Your task to perform on an android device: turn on translation in the chrome app Image 0: 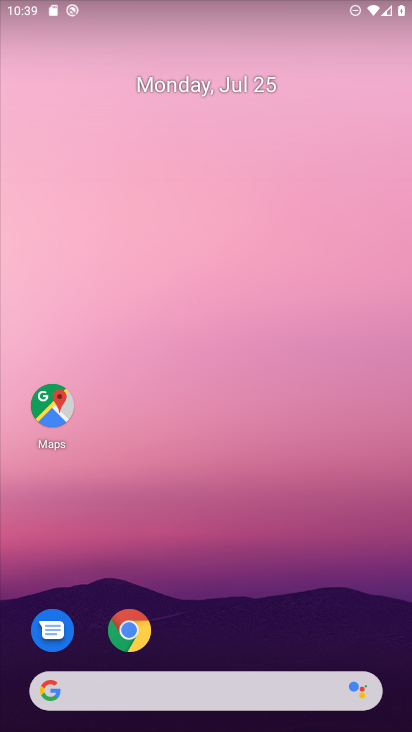
Step 0: drag from (303, 589) to (264, 65)
Your task to perform on an android device: turn on translation in the chrome app Image 1: 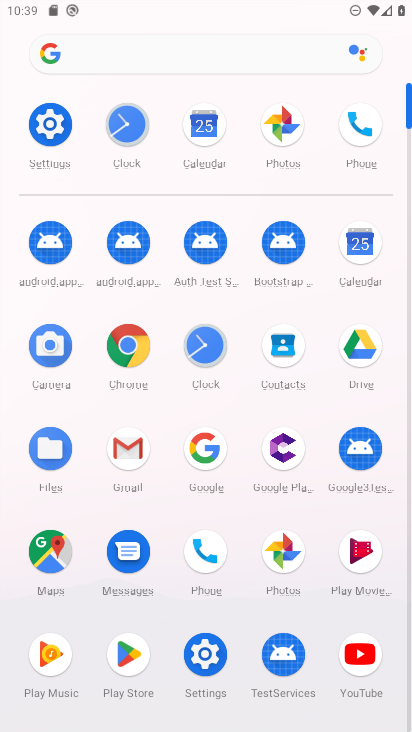
Step 1: click (124, 349)
Your task to perform on an android device: turn on translation in the chrome app Image 2: 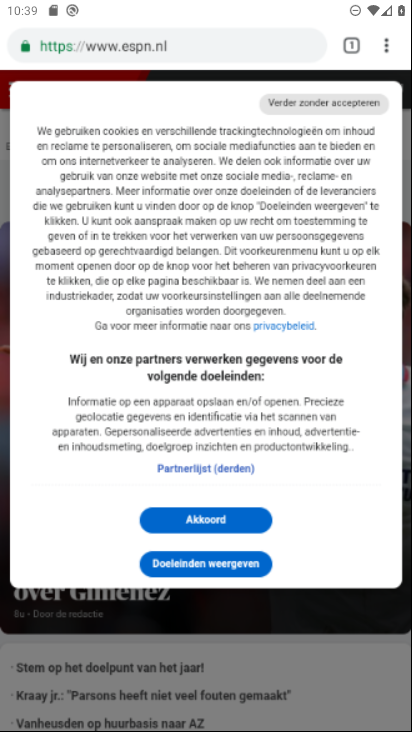
Step 2: drag from (387, 51) to (238, 592)
Your task to perform on an android device: turn on translation in the chrome app Image 3: 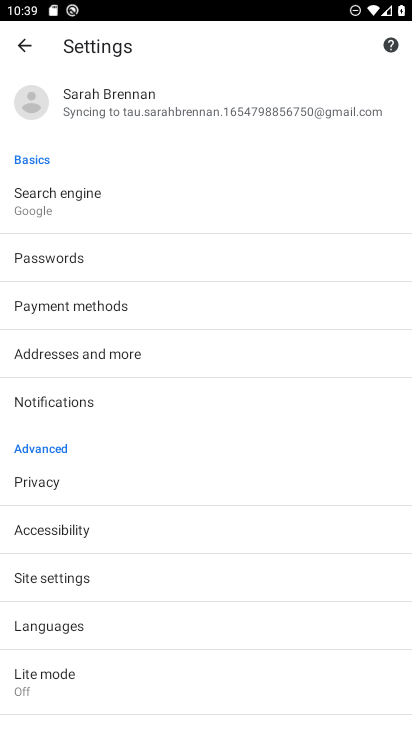
Step 3: drag from (182, 596) to (230, 79)
Your task to perform on an android device: turn on translation in the chrome app Image 4: 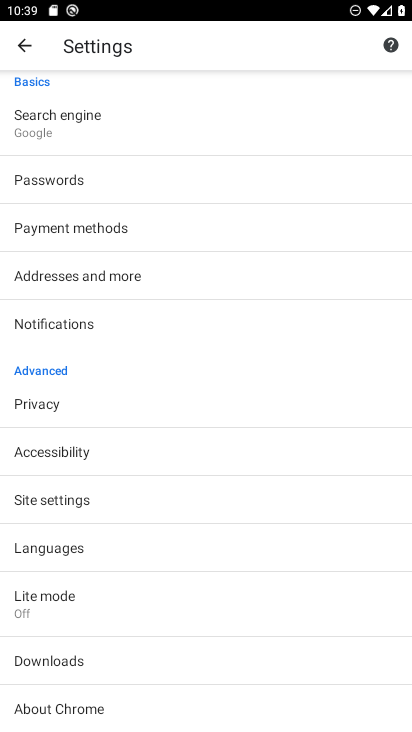
Step 4: click (76, 546)
Your task to perform on an android device: turn on translation in the chrome app Image 5: 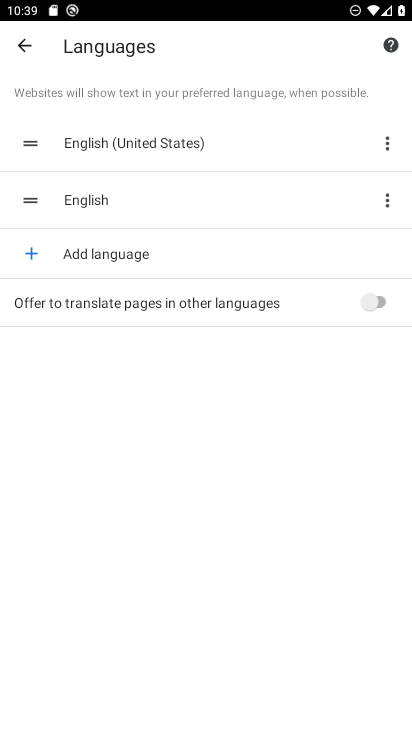
Step 5: click (380, 290)
Your task to perform on an android device: turn on translation in the chrome app Image 6: 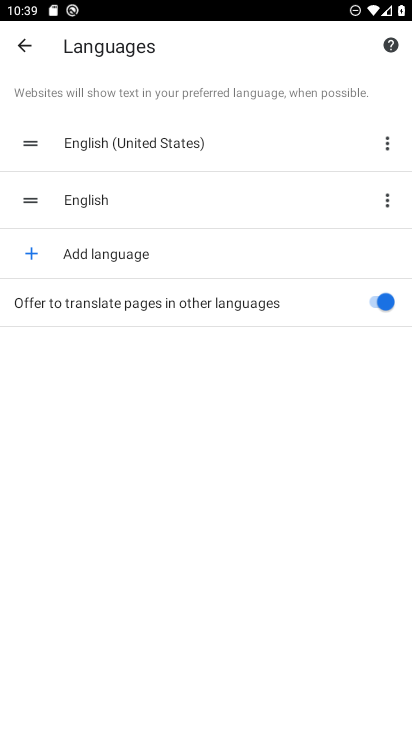
Step 6: task complete